Your task to perform on an android device: Open internet settings Image 0: 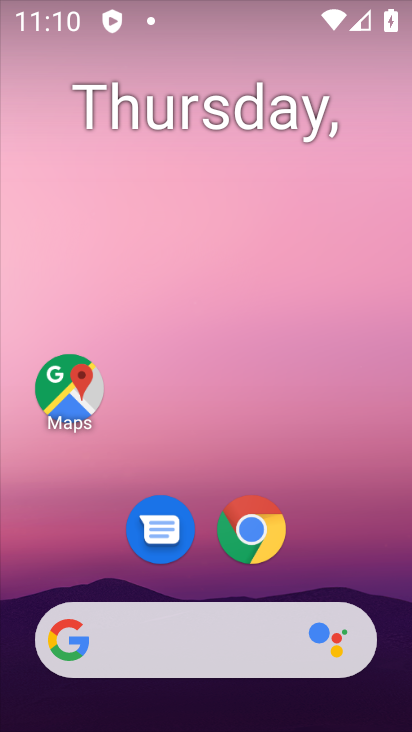
Step 0: drag from (233, 625) to (253, 249)
Your task to perform on an android device: Open internet settings Image 1: 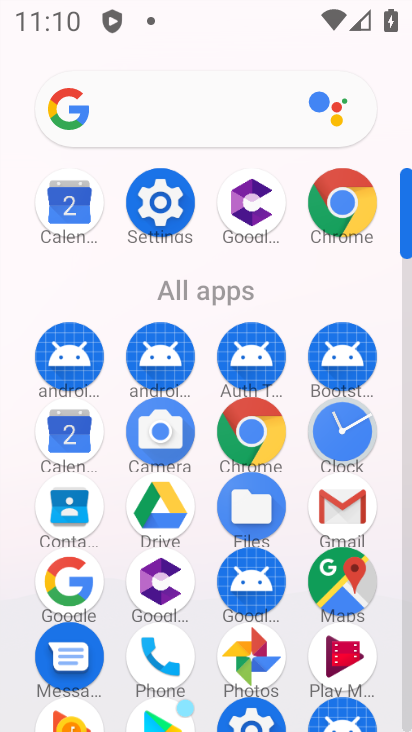
Step 1: click (174, 211)
Your task to perform on an android device: Open internet settings Image 2: 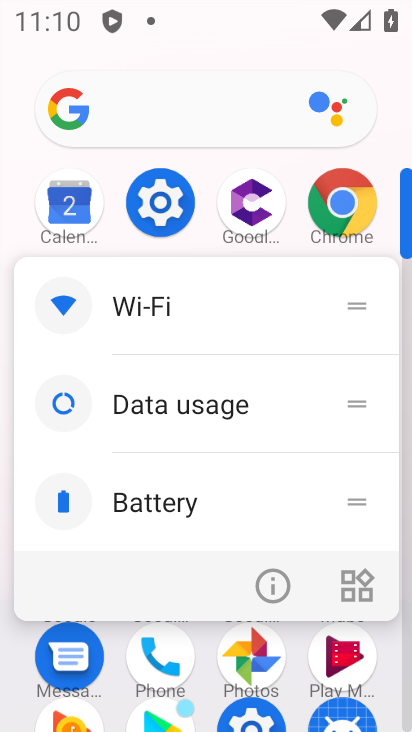
Step 2: click (172, 235)
Your task to perform on an android device: Open internet settings Image 3: 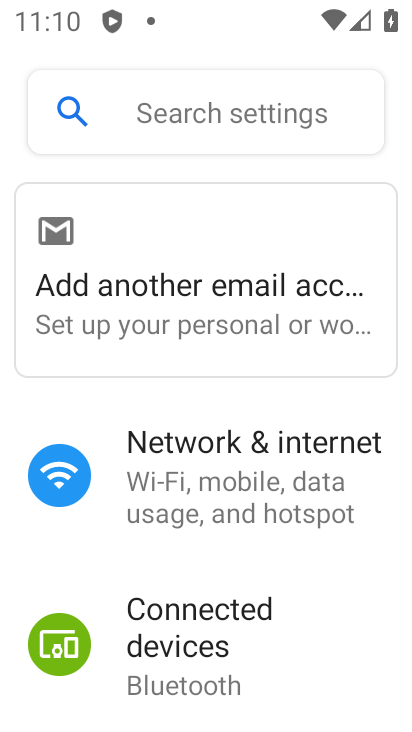
Step 3: click (233, 472)
Your task to perform on an android device: Open internet settings Image 4: 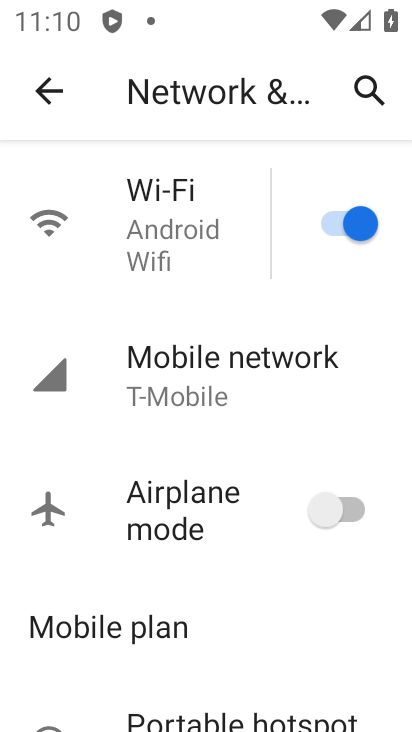
Step 4: drag from (207, 593) to (231, 170)
Your task to perform on an android device: Open internet settings Image 5: 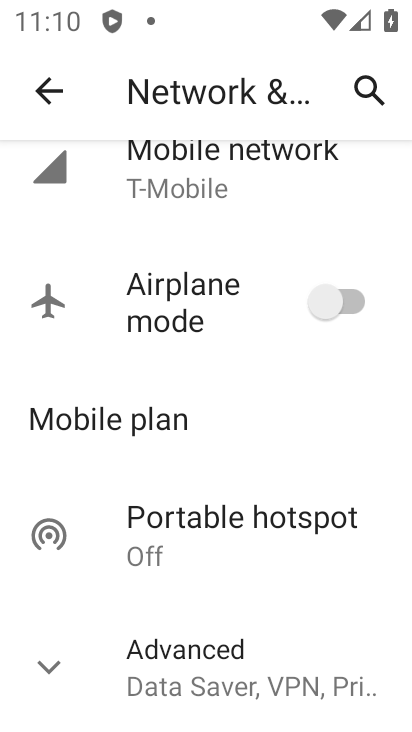
Step 5: click (208, 695)
Your task to perform on an android device: Open internet settings Image 6: 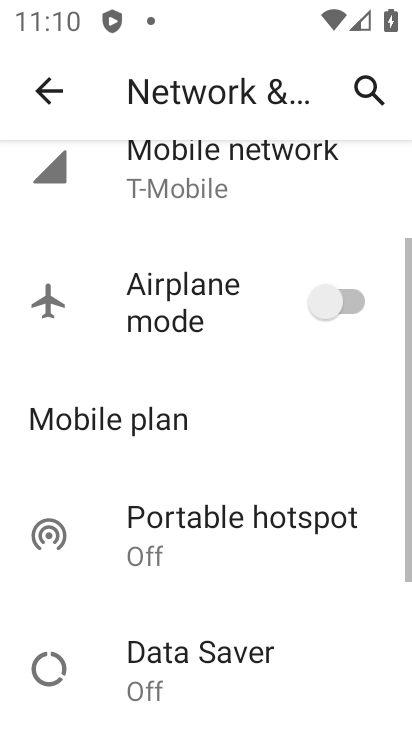
Step 6: task complete